Your task to perform on an android device: turn off javascript in the chrome app Image 0: 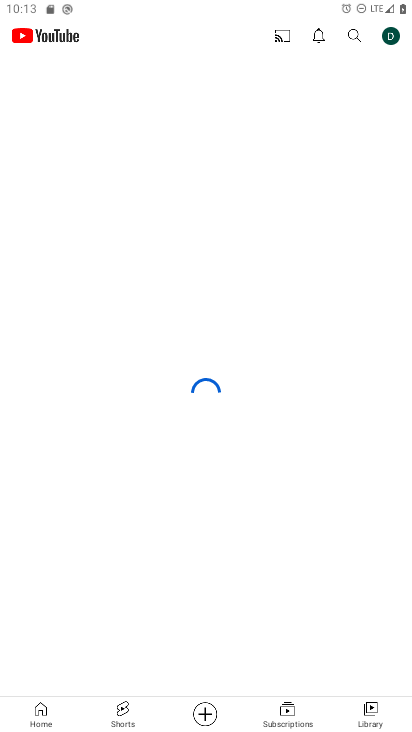
Step 0: drag from (298, 576) to (193, 229)
Your task to perform on an android device: turn off javascript in the chrome app Image 1: 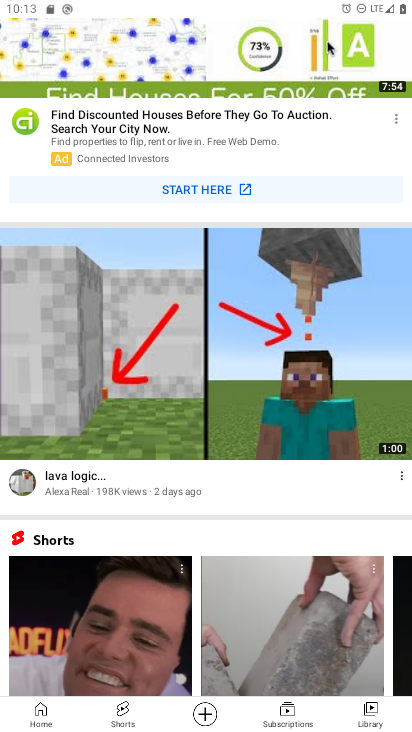
Step 1: press home button
Your task to perform on an android device: turn off javascript in the chrome app Image 2: 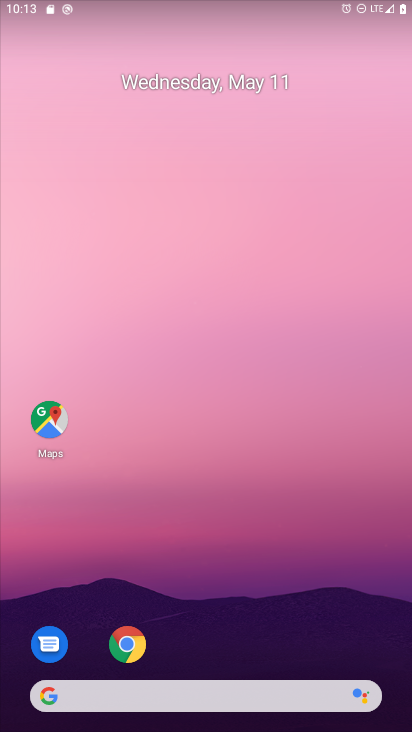
Step 2: click (130, 648)
Your task to perform on an android device: turn off javascript in the chrome app Image 3: 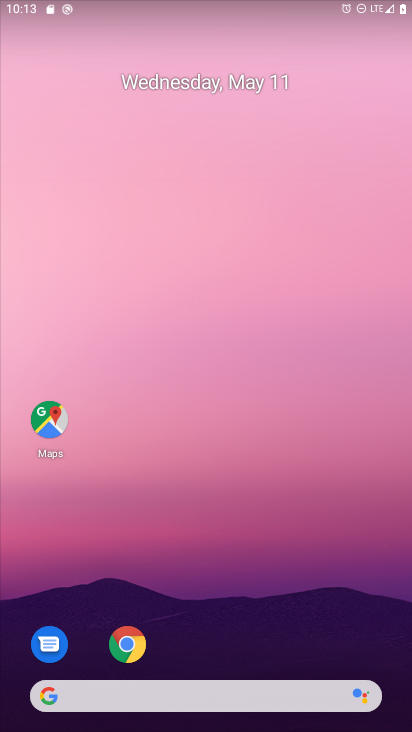
Step 3: click (130, 648)
Your task to perform on an android device: turn off javascript in the chrome app Image 4: 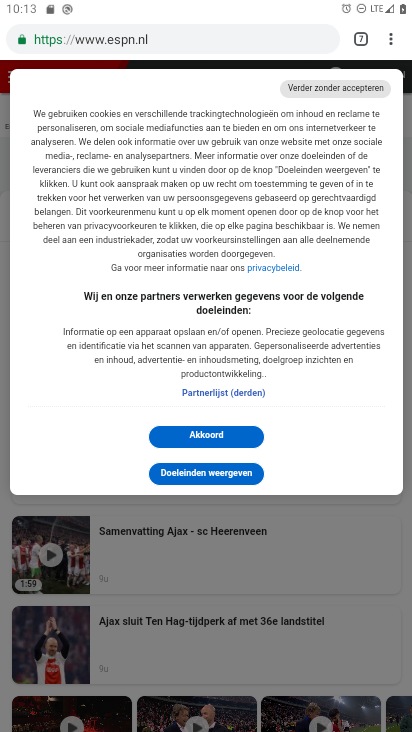
Step 4: click (385, 39)
Your task to perform on an android device: turn off javascript in the chrome app Image 5: 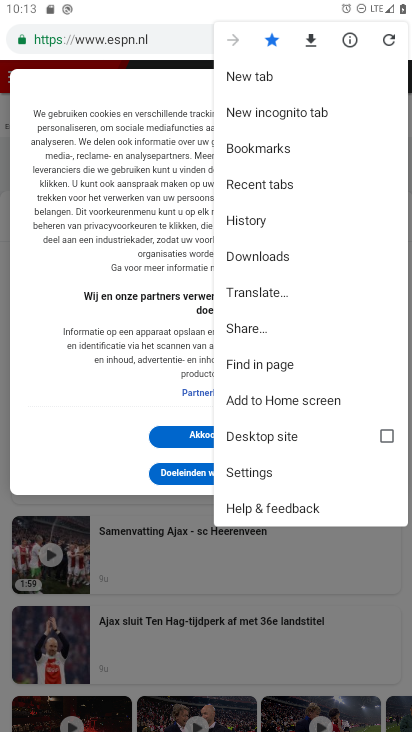
Step 5: click (256, 476)
Your task to perform on an android device: turn off javascript in the chrome app Image 6: 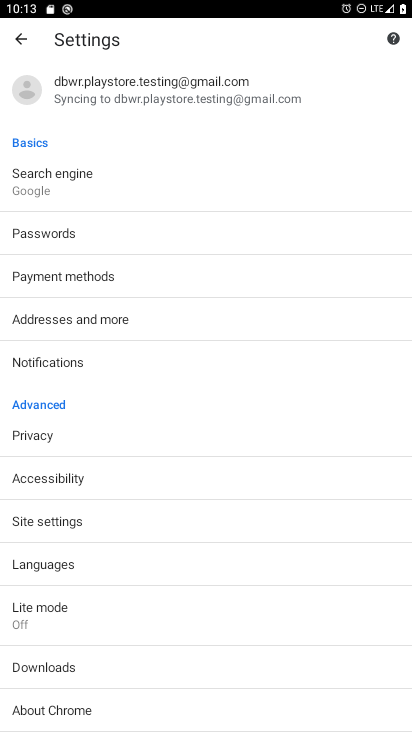
Step 6: click (21, 524)
Your task to perform on an android device: turn off javascript in the chrome app Image 7: 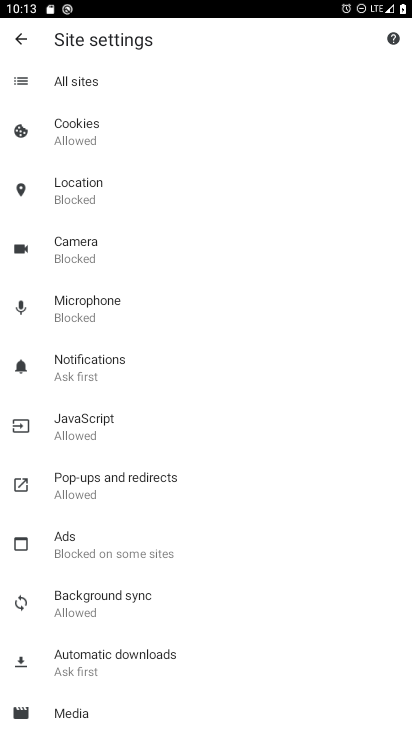
Step 7: click (108, 422)
Your task to perform on an android device: turn off javascript in the chrome app Image 8: 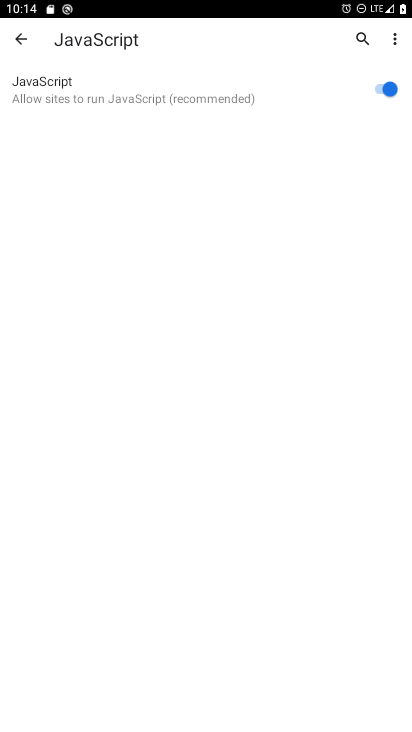
Step 8: click (389, 93)
Your task to perform on an android device: turn off javascript in the chrome app Image 9: 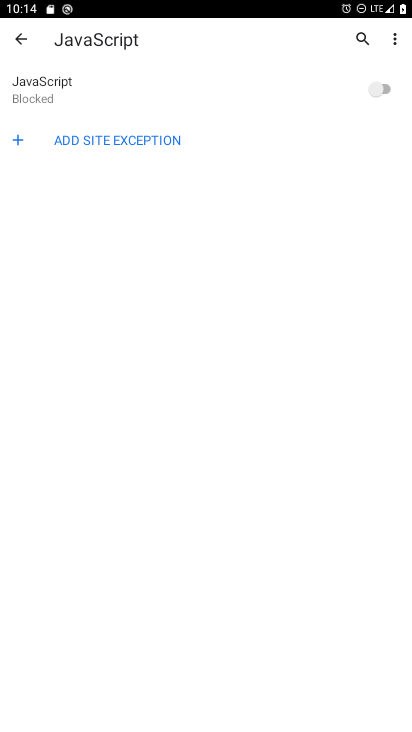
Step 9: task complete